Your task to perform on an android device: Go to wifi settings Image 0: 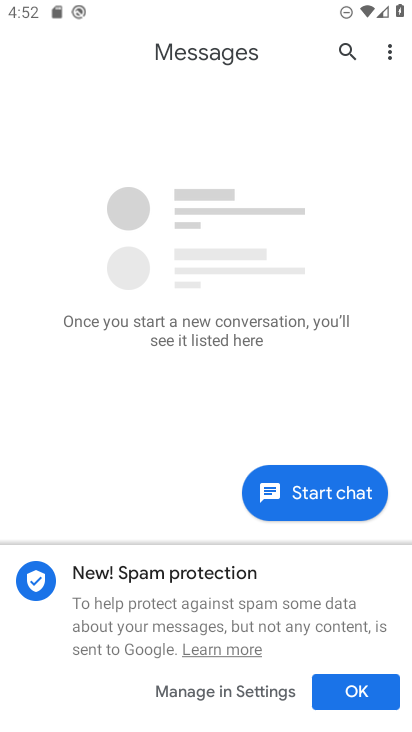
Step 0: drag from (309, 630) to (319, 203)
Your task to perform on an android device: Go to wifi settings Image 1: 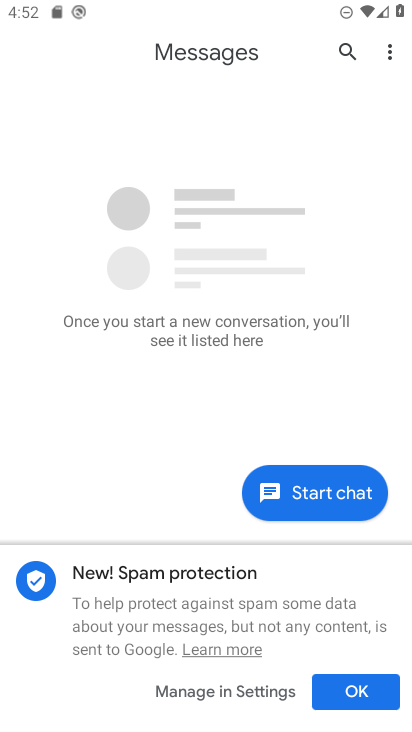
Step 1: press home button
Your task to perform on an android device: Go to wifi settings Image 2: 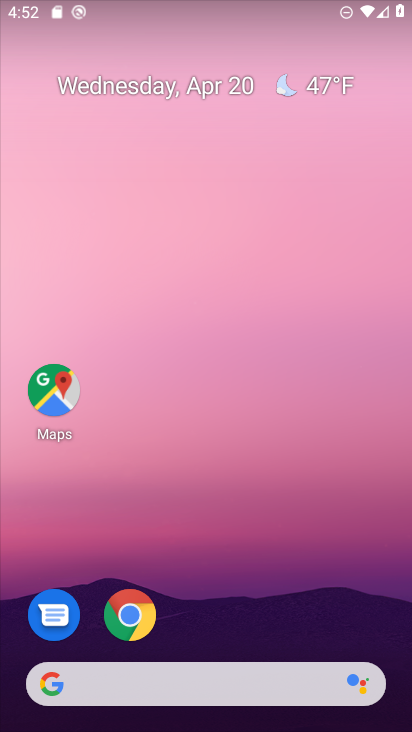
Step 2: drag from (219, 562) to (218, 86)
Your task to perform on an android device: Go to wifi settings Image 3: 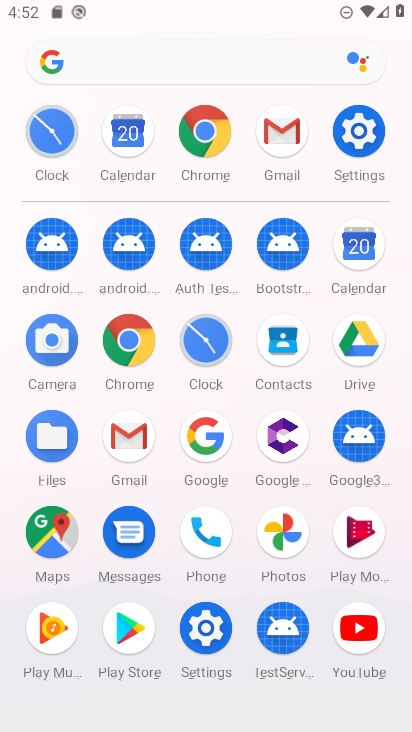
Step 3: click (362, 148)
Your task to perform on an android device: Go to wifi settings Image 4: 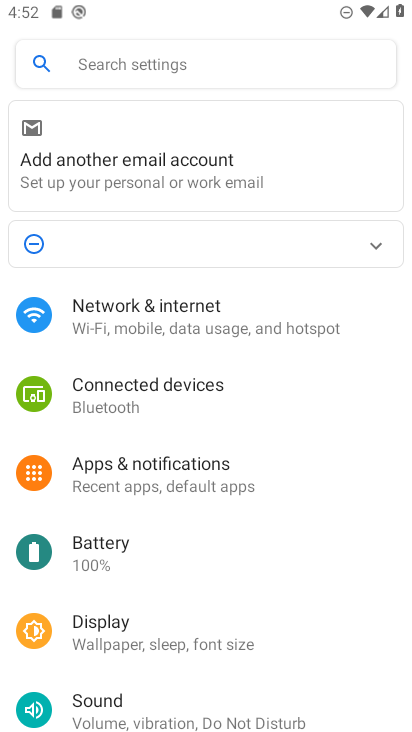
Step 4: click (200, 330)
Your task to perform on an android device: Go to wifi settings Image 5: 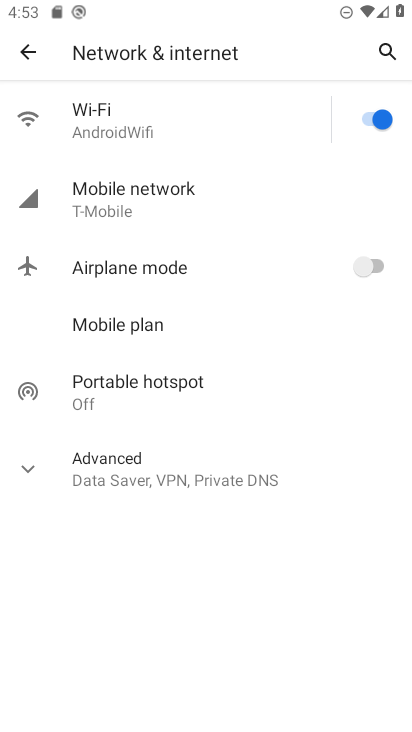
Step 5: click (181, 134)
Your task to perform on an android device: Go to wifi settings Image 6: 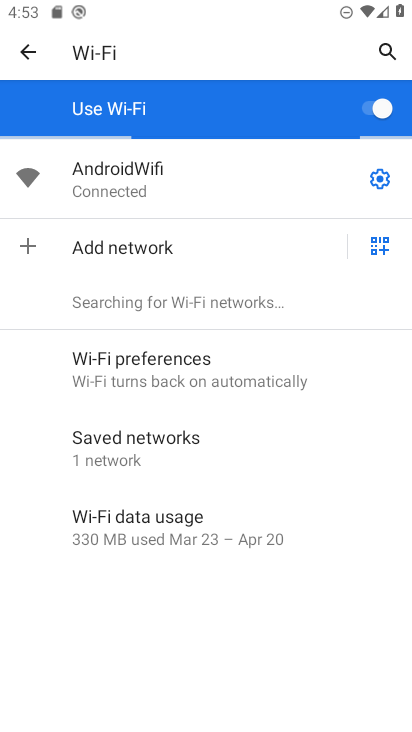
Step 6: task complete